Your task to perform on an android device: Go to ESPN.com Image 0: 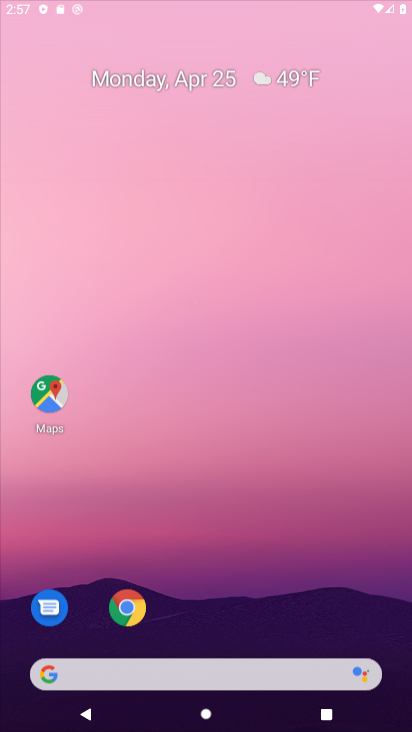
Step 0: click (219, 117)
Your task to perform on an android device: Go to ESPN.com Image 1: 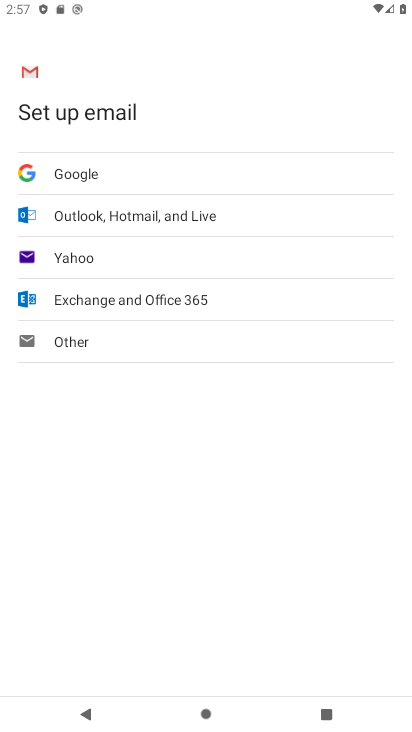
Step 1: press home button
Your task to perform on an android device: Go to ESPN.com Image 2: 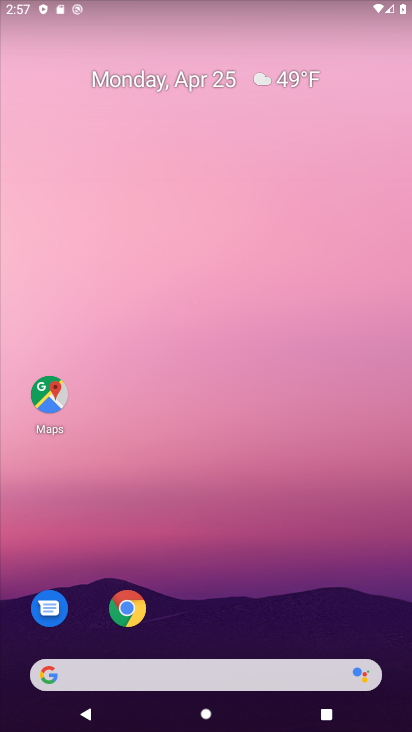
Step 2: click (142, 608)
Your task to perform on an android device: Go to ESPN.com Image 3: 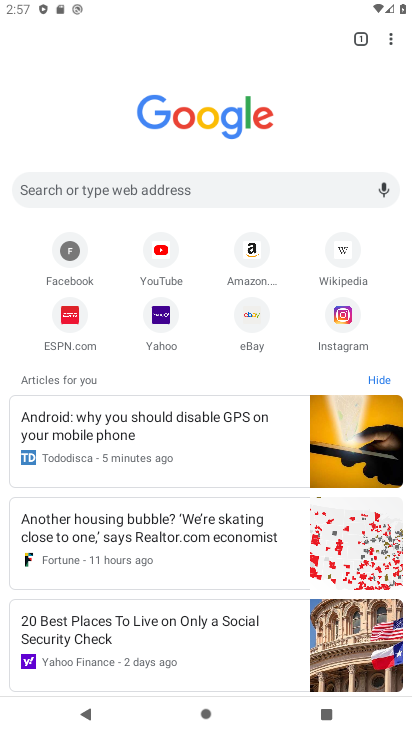
Step 3: click (66, 324)
Your task to perform on an android device: Go to ESPN.com Image 4: 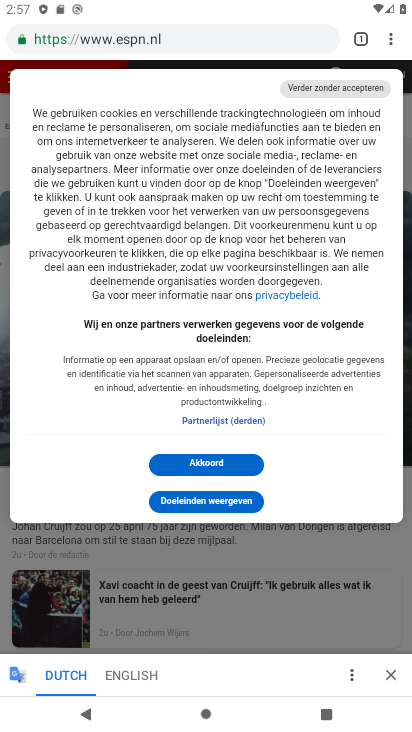
Step 4: task complete